Your task to perform on an android device: set default search engine in the chrome app Image 0: 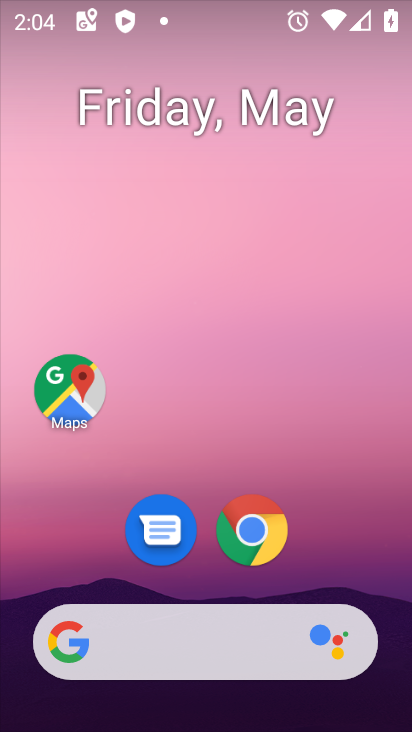
Step 0: click (248, 533)
Your task to perform on an android device: set default search engine in the chrome app Image 1: 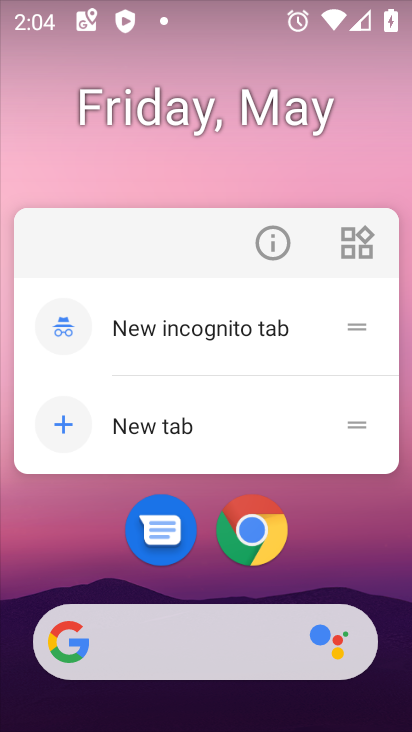
Step 1: click (238, 526)
Your task to perform on an android device: set default search engine in the chrome app Image 2: 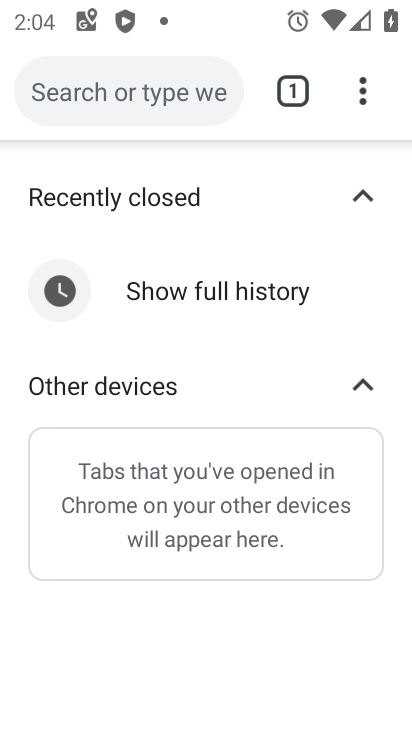
Step 2: click (352, 94)
Your task to perform on an android device: set default search engine in the chrome app Image 3: 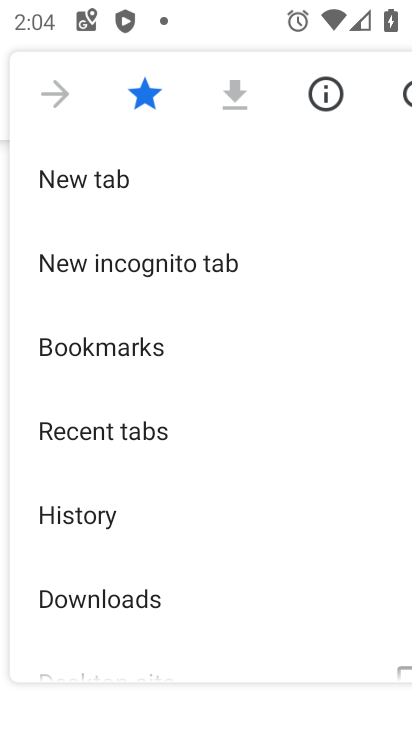
Step 3: drag from (146, 623) to (169, 264)
Your task to perform on an android device: set default search engine in the chrome app Image 4: 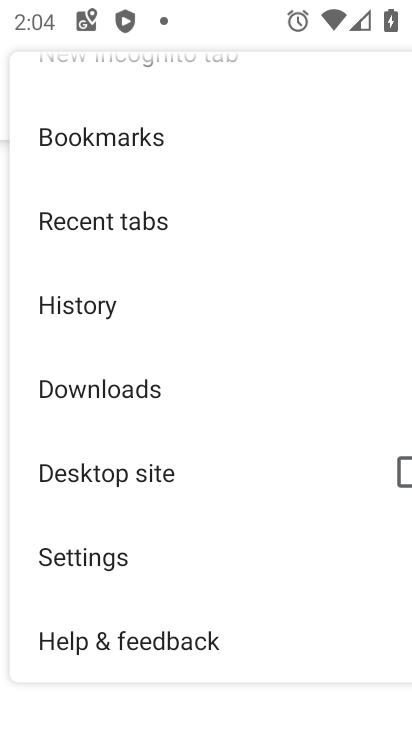
Step 4: click (123, 552)
Your task to perform on an android device: set default search engine in the chrome app Image 5: 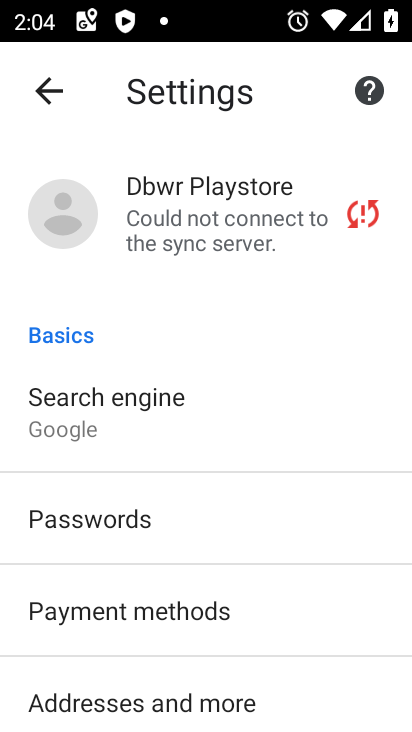
Step 5: drag from (195, 657) to (171, 523)
Your task to perform on an android device: set default search engine in the chrome app Image 6: 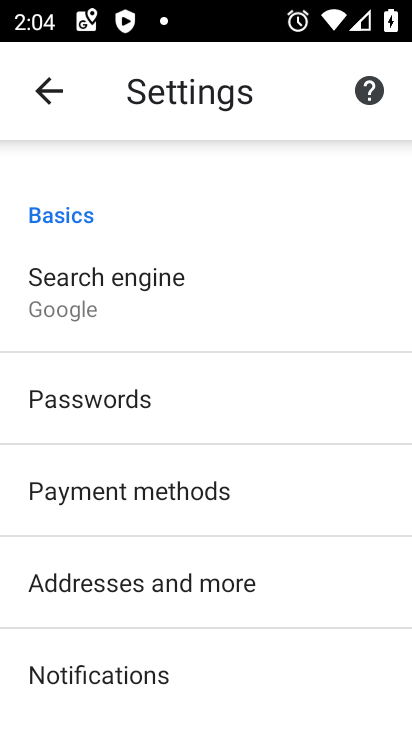
Step 6: click (104, 309)
Your task to perform on an android device: set default search engine in the chrome app Image 7: 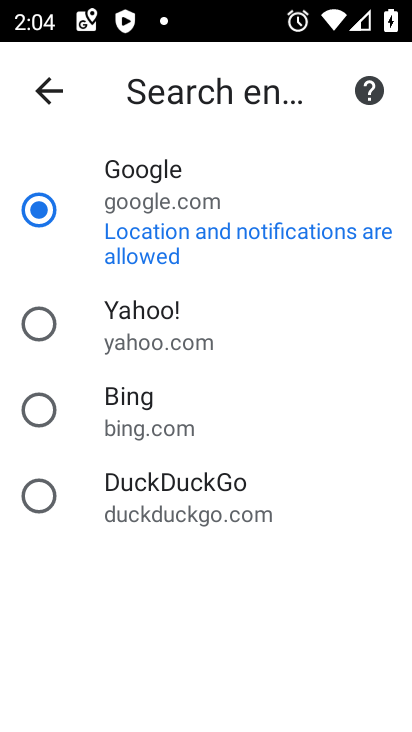
Step 7: click (132, 330)
Your task to perform on an android device: set default search engine in the chrome app Image 8: 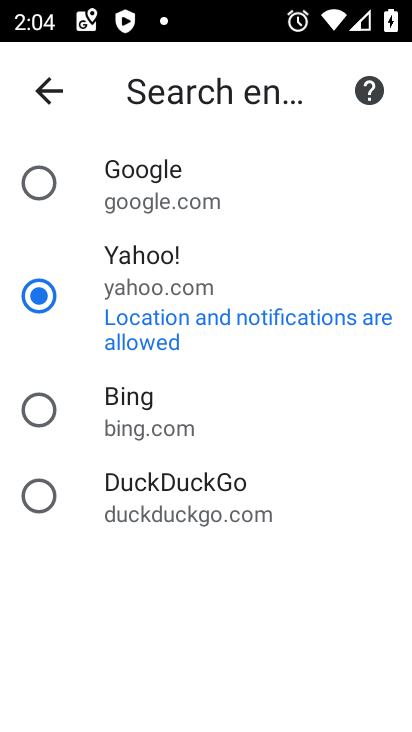
Step 8: task complete